Your task to perform on an android device: Open Android settings Image 0: 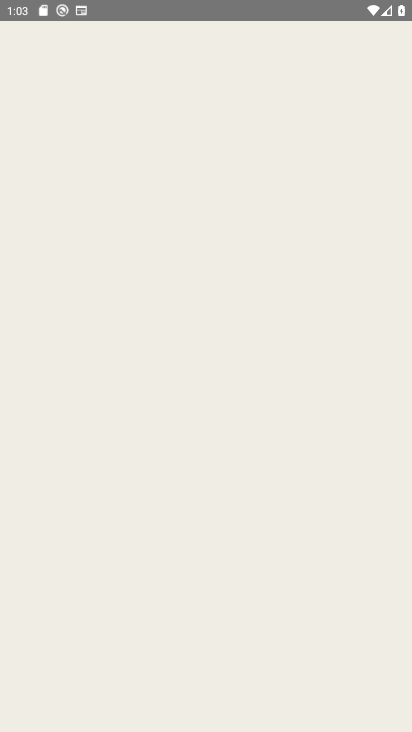
Step 0: press home button
Your task to perform on an android device: Open Android settings Image 1: 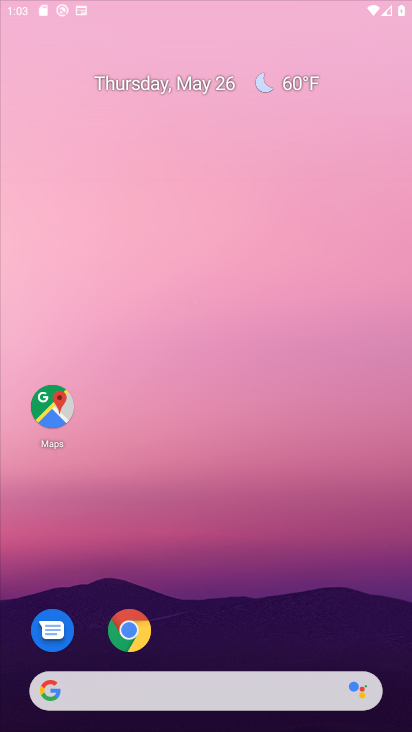
Step 1: drag from (270, 606) to (238, 51)
Your task to perform on an android device: Open Android settings Image 2: 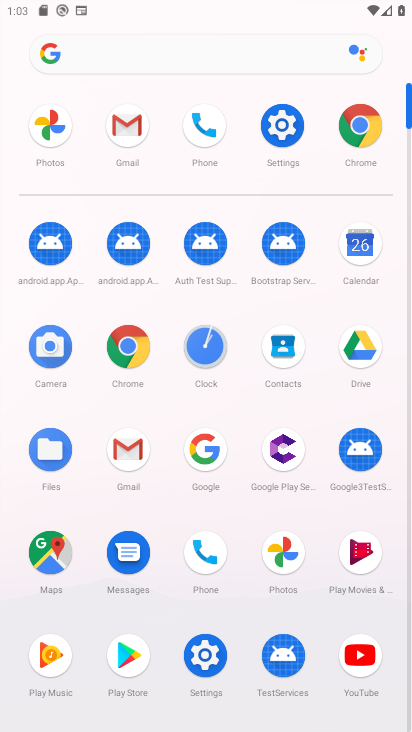
Step 2: click (282, 120)
Your task to perform on an android device: Open Android settings Image 3: 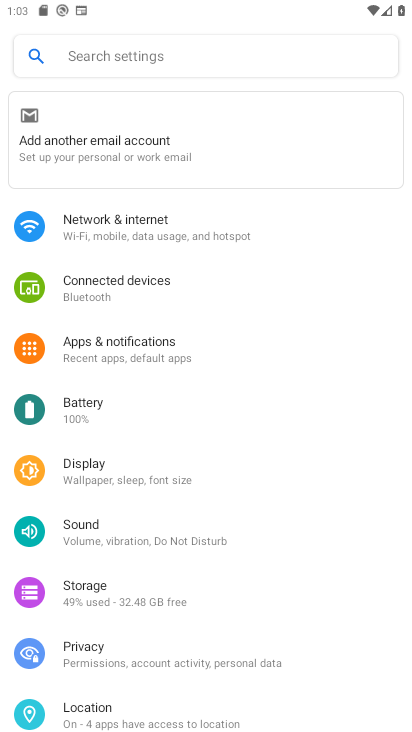
Step 3: task complete